Your task to perform on an android device: turn on bluetooth scan Image 0: 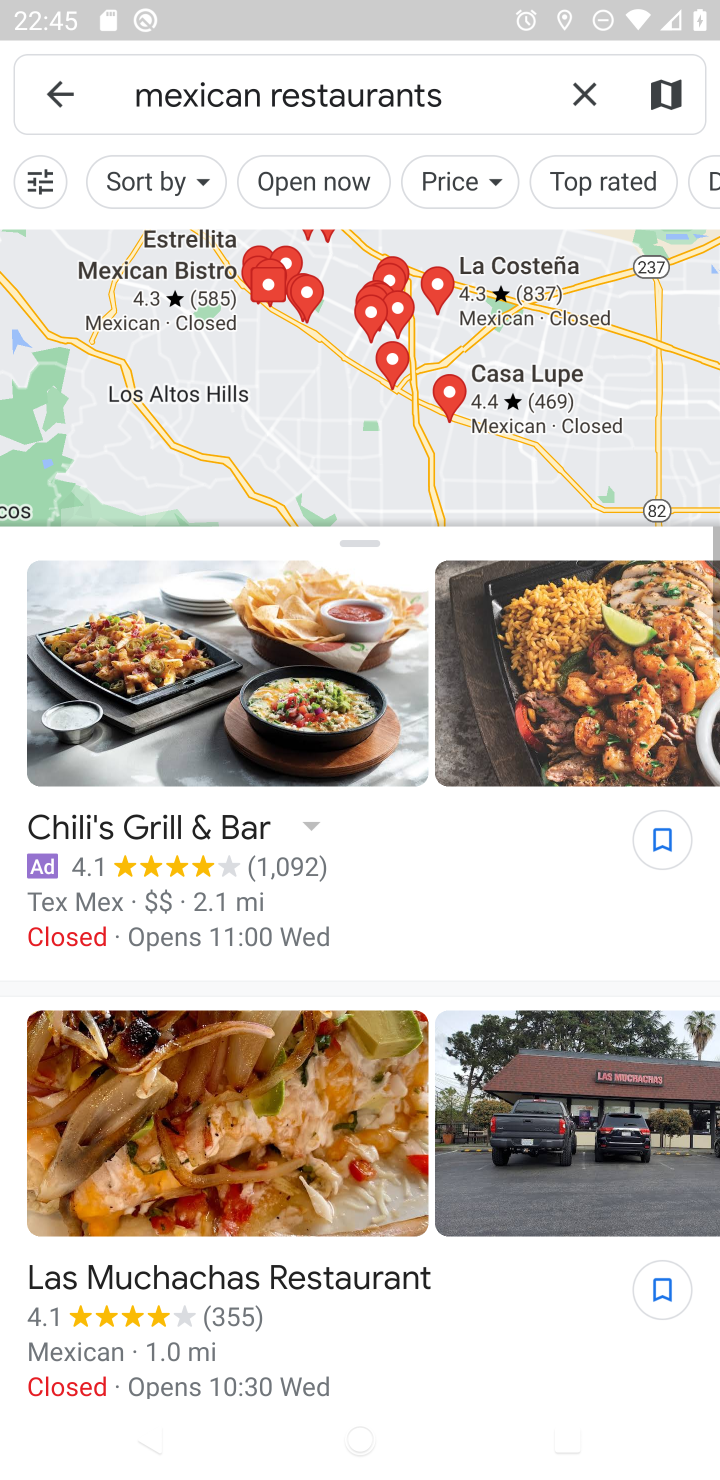
Step 0: press home button
Your task to perform on an android device: turn on bluetooth scan Image 1: 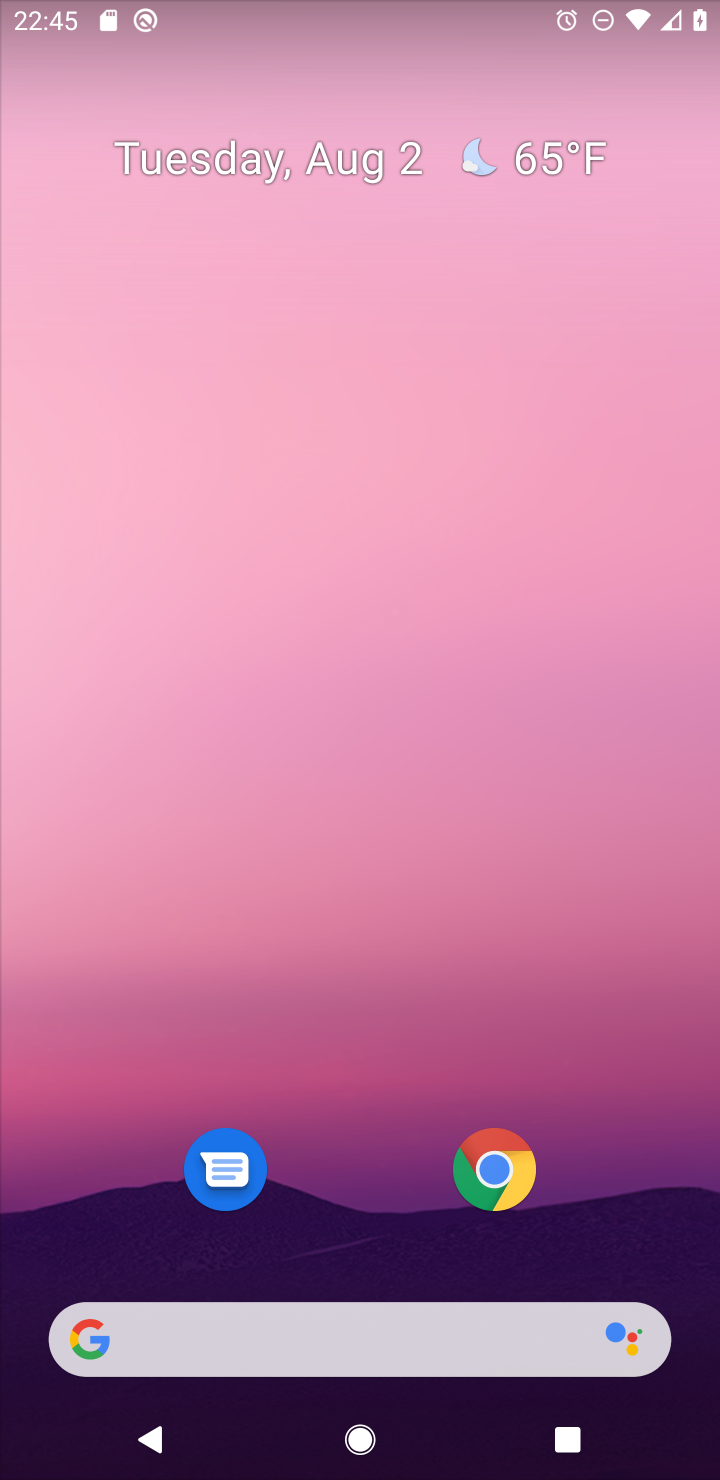
Step 1: drag from (380, 1163) to (295, 39)
Your task to perform on an android device: turn on bluetooth scan Image 2: 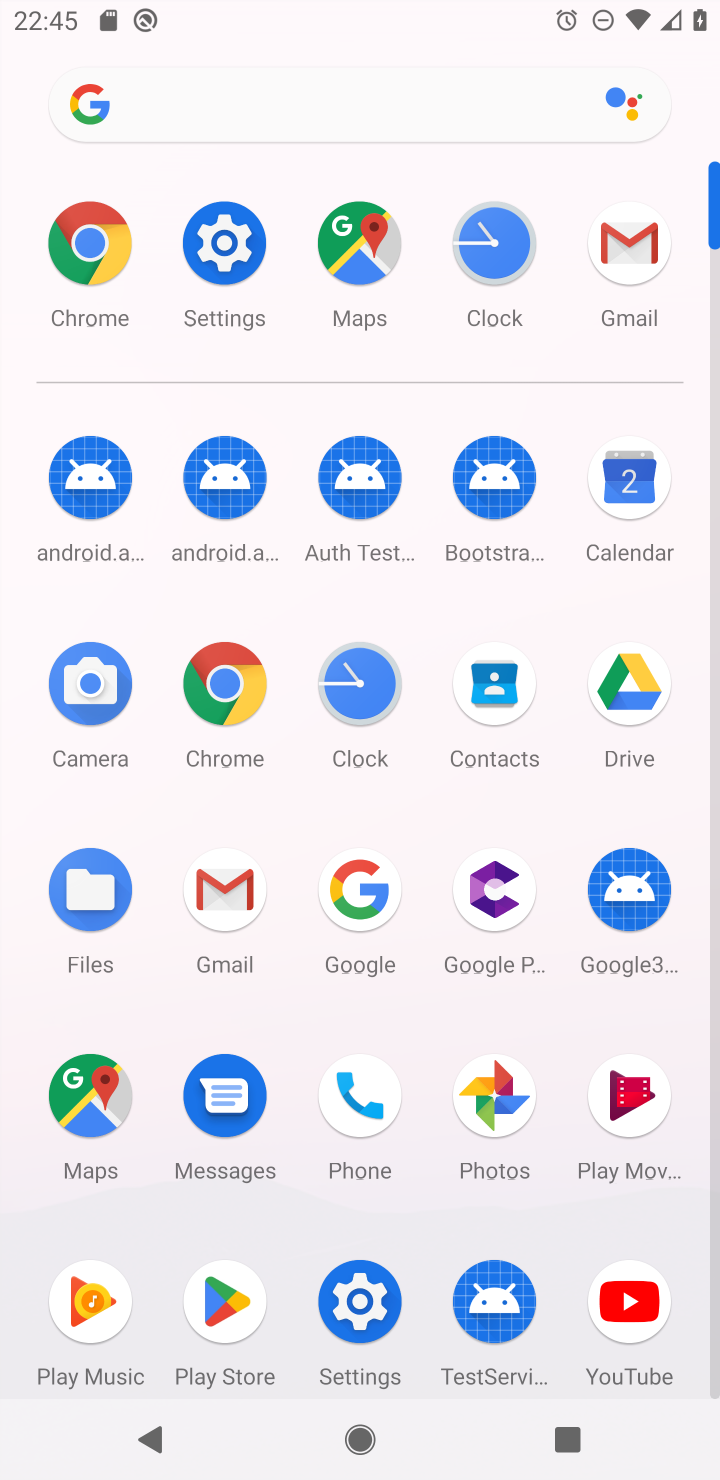
Step 2: click (211, 243)
Your task to perform on an android device: turn on bluetooth scan Image 3: 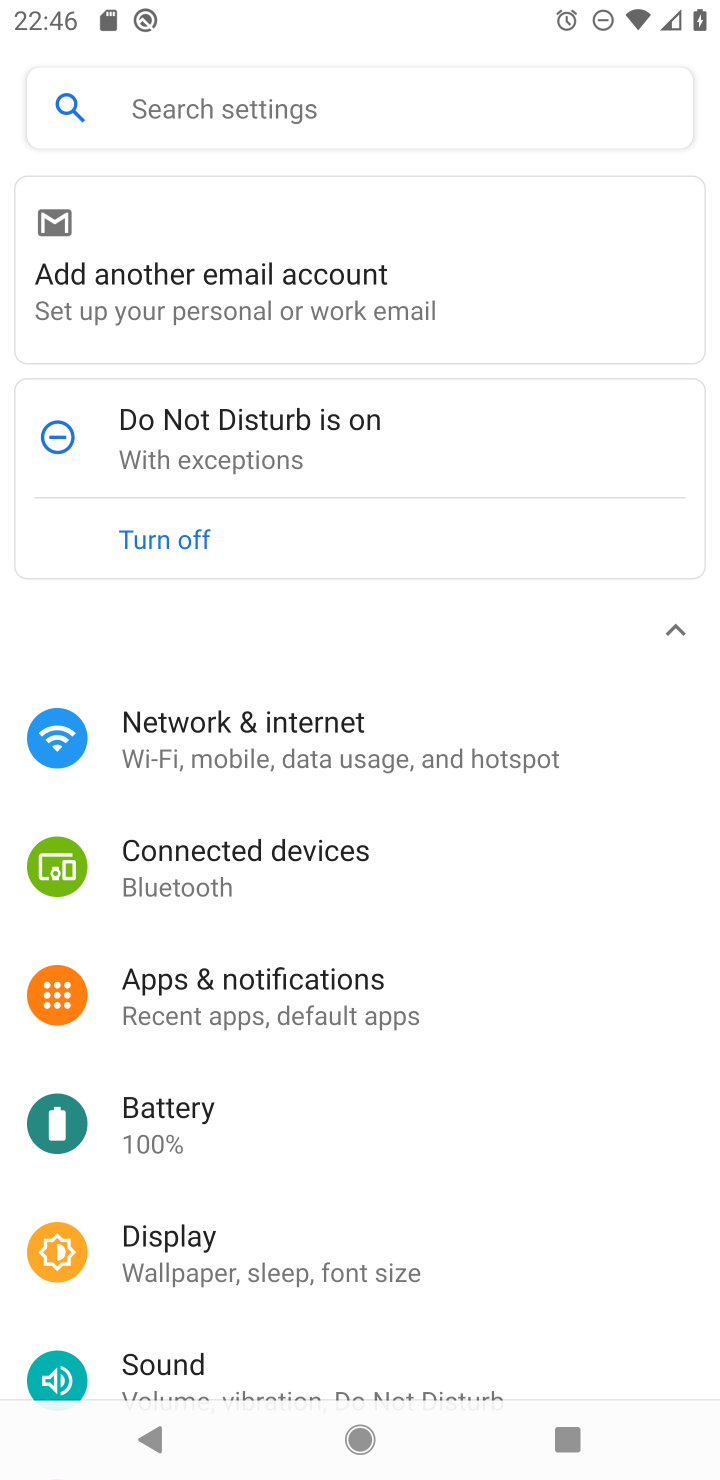
Step 3: drag from (203, 1274) to (192, 612)
Your task to perform on an android device: turn on bluetooth scan Image 4: 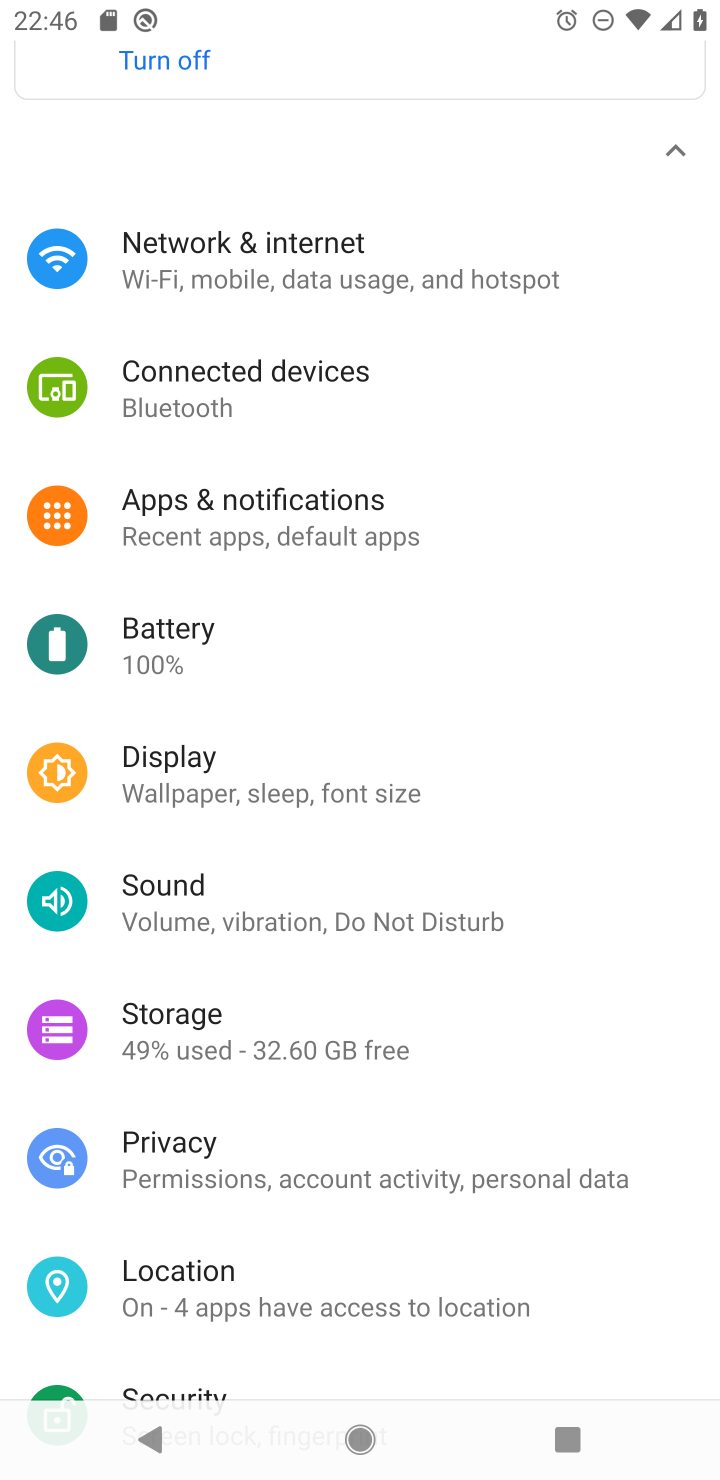
Step 4: click (229, 1278)
Your task to perform on an android device: turn on bluetooth scan Image 5: 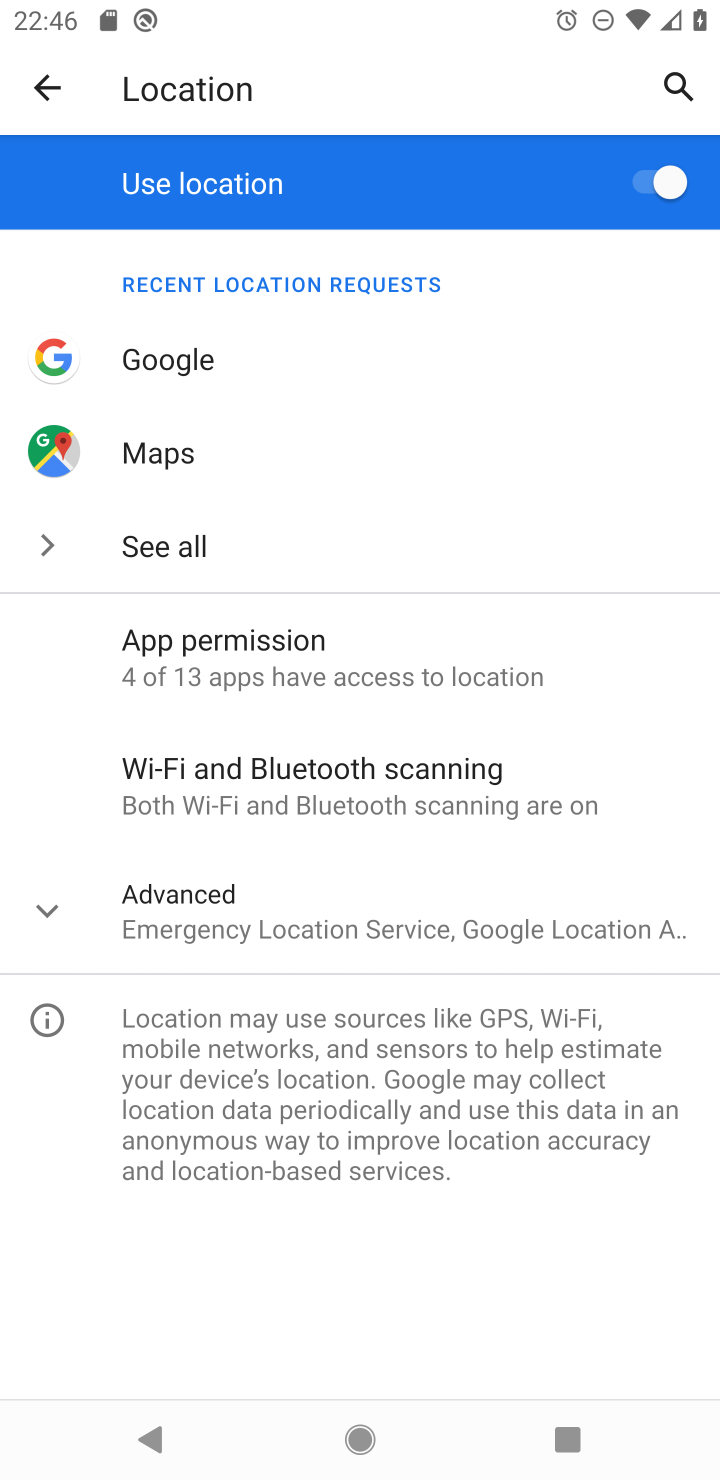
Step 5: click (241, 799)
Your task to perform on an android device: turn on bluetooth scan Image 6: 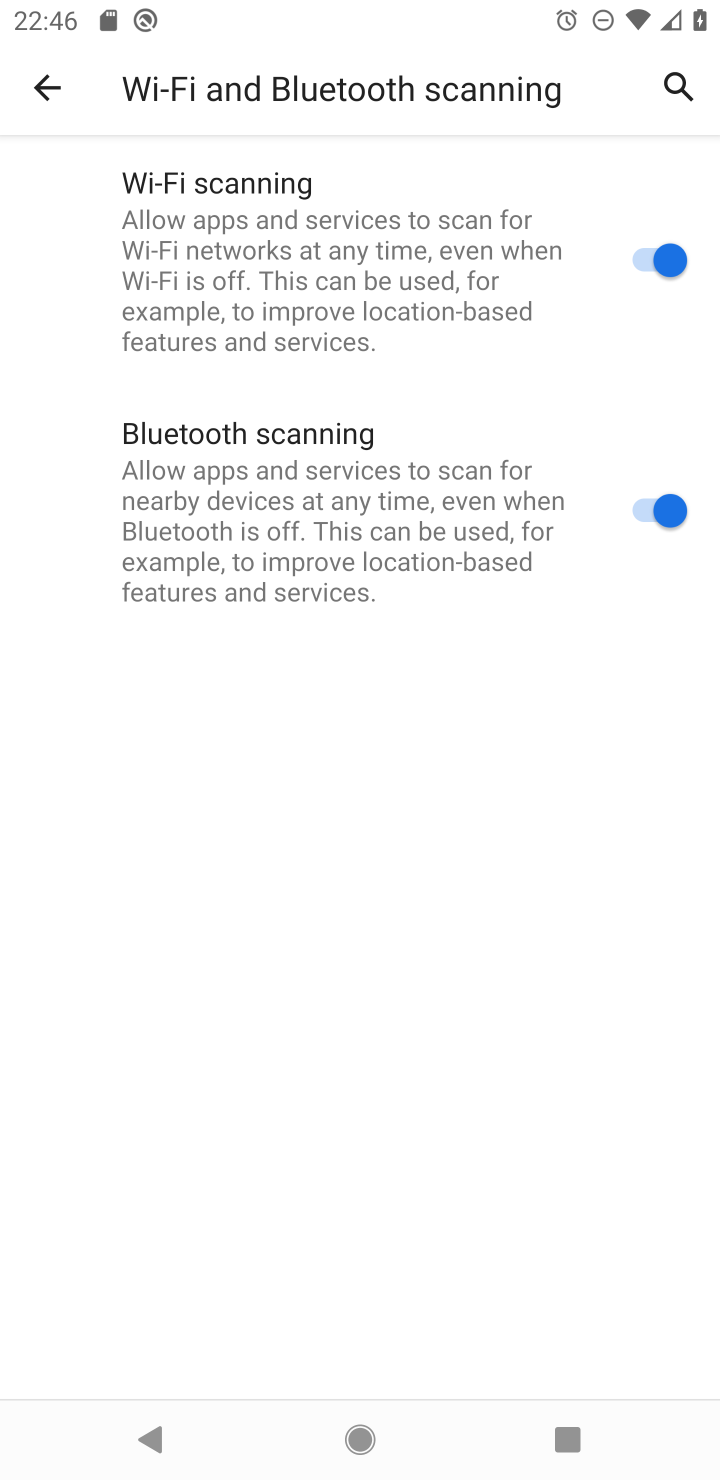
Step 6: task complete